Your task to perform on an android device: turn on the 12-hour format for clock Image 0: 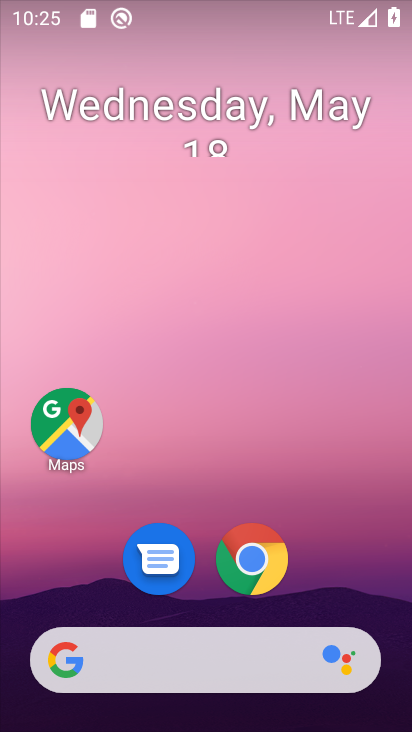
Step 0: drag from (209, 589) to (253, 193)
Your task to perform on an android device: turn on the 12-hour format for clock Image 1: 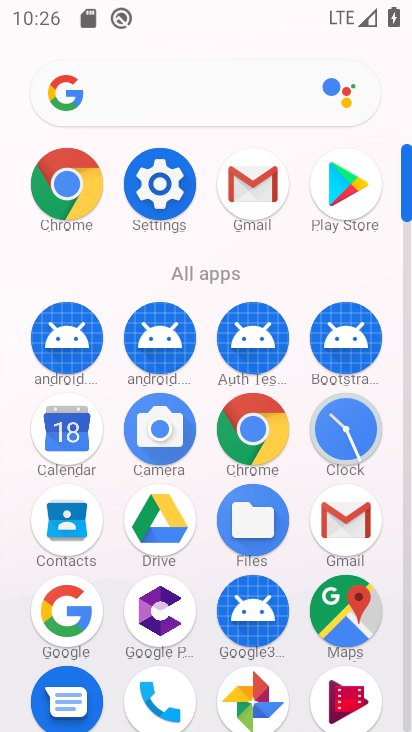
Step 1: click (157, 200)
Your task to perform on an android device: turn on the 12-hour format for clock Image 2: 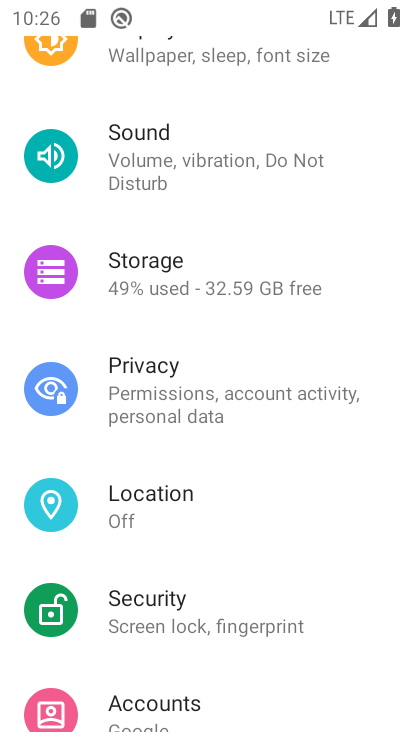
Step 2: drag from (172, 529) to (196, 294)
Your task to perform on an android device: turn on the 12-hour format for clock Image 3: 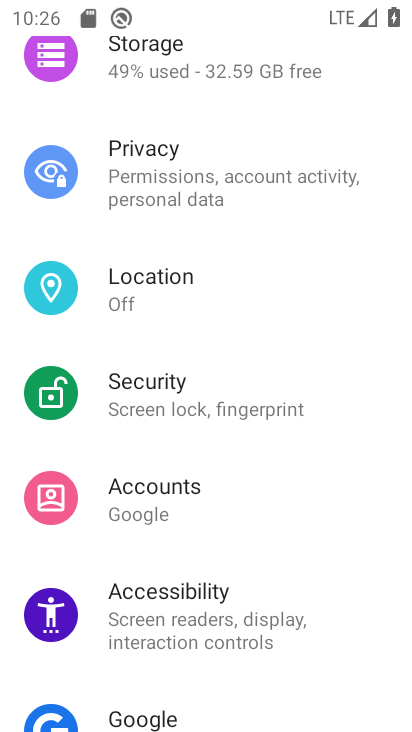
Step 3: drag from (202, 545) to (229, 348)
Your task to perform on an android device: turn on the 12-hour format for clock Image 4: 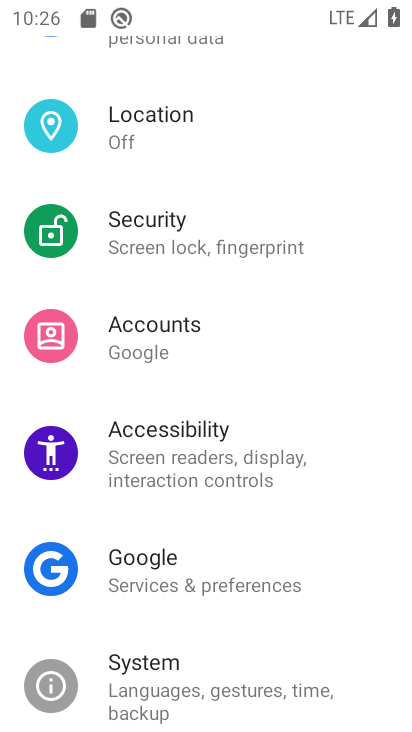
Step 4: click (168, 677)
Your task to perform on an android device: turn on the 12-hour format for clock Image 5: 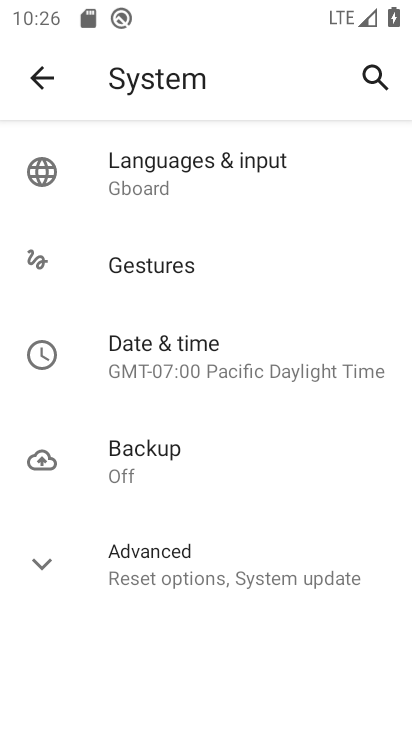
Step 5: click (201, 363)
Your task to perform on an android device: turn on the 12-hour format for clock Image 6: 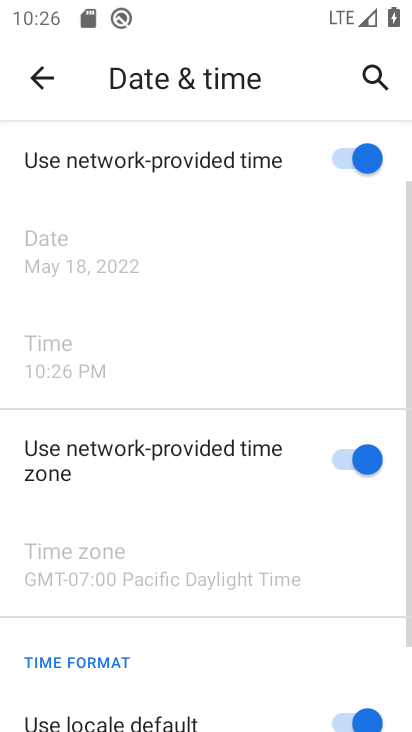
Step 6: task complete